Your task to perform on an android device: Open notification settings Image 0: 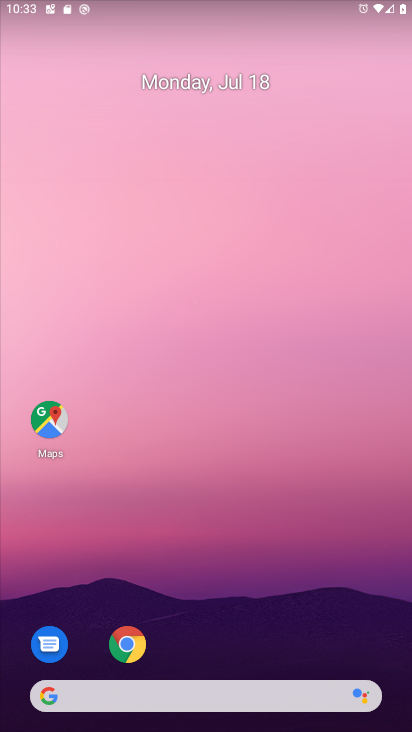
Step 0: drag from (240, 649) to (279, 155)
Your task to perform on an android device: Open notification settings Image 1: 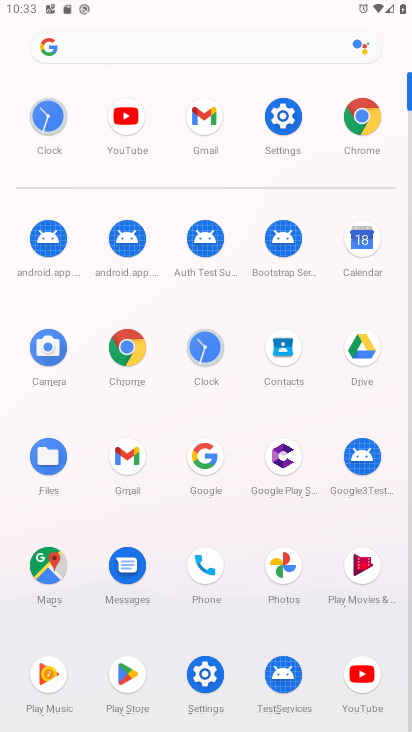
Step 1: click (288, 114)
Your task to perform on an android device: Open notification settings Image 2: 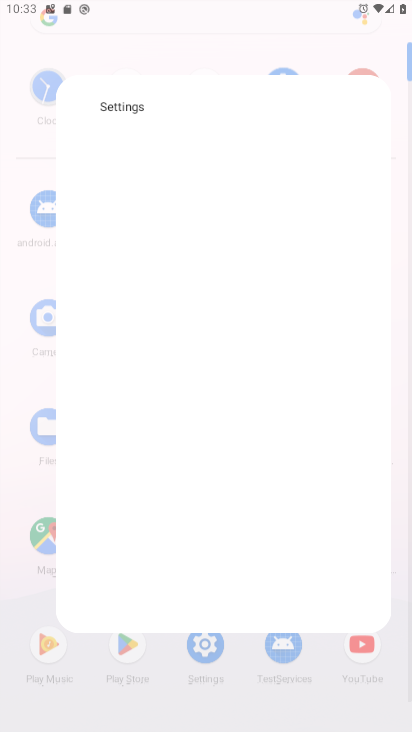
Step 2: task complete